Your task to perform on an android device: turn on the 24-hour format for clock Image 0: 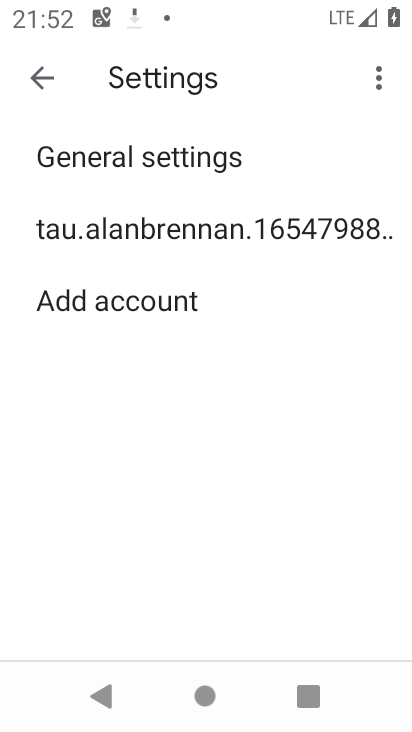
Step 0: press back button
Your task to perform on an android device: turn on the 24-hour format for clock Image 1: 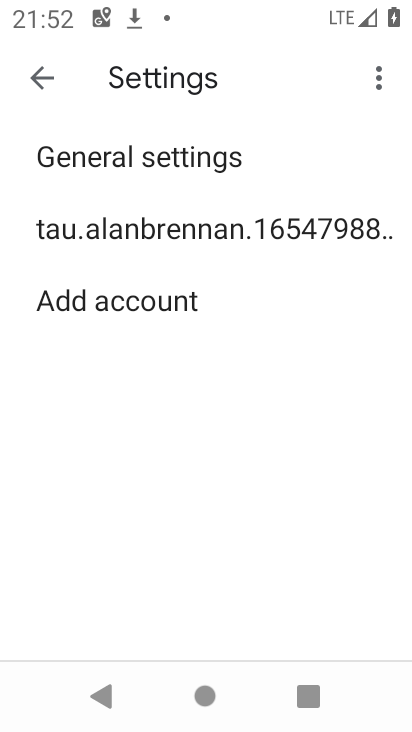
Step 1: press back button
Your task to perform on an android device: turn on the 24-hour format for clock Image 2: 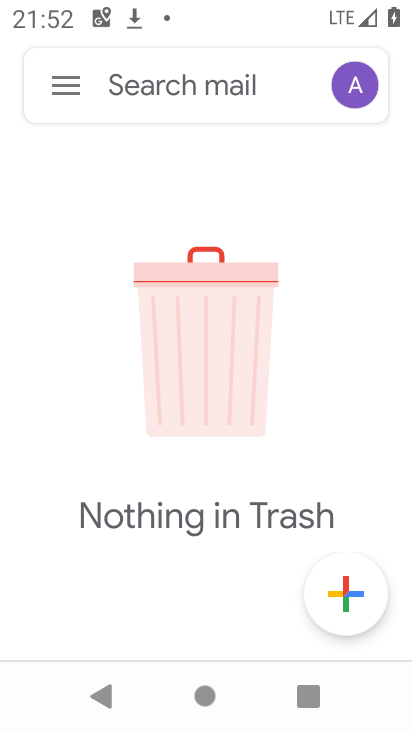
Step 2: press back button
Your task to perform on an android device: turn on the 24-hour format for clock Image 3: 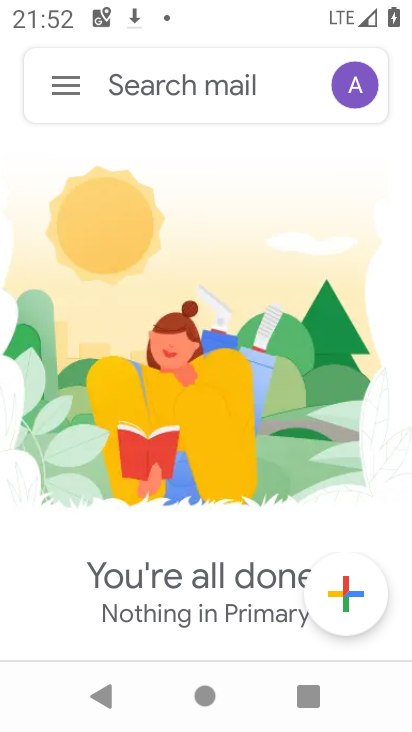
Step 3: press back button
Your task to perform on an android device: turn on the 24-hour format for clock Image 4: 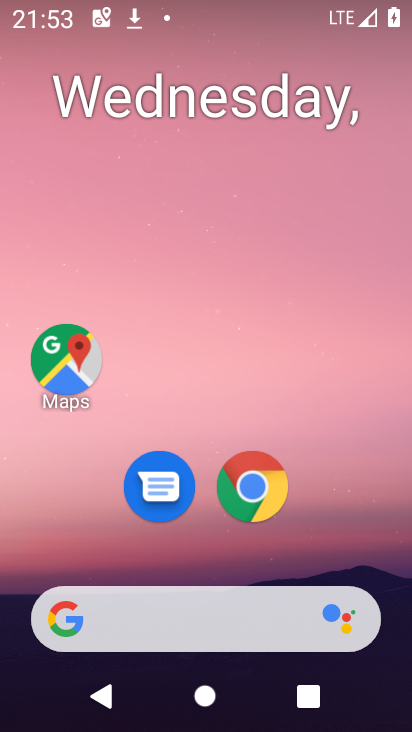
Step 4: drag from (163, 403) to (141, 29)
Your task to perform on an android device: turn on the 24-hour format for clock Image 5: 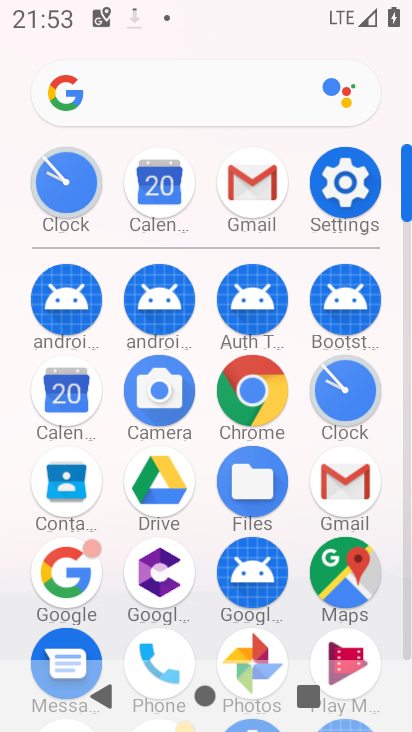
Step 5: click (351, 383)
Your task to perform on an android device: turn on the 24-hour format for clock Image 6: 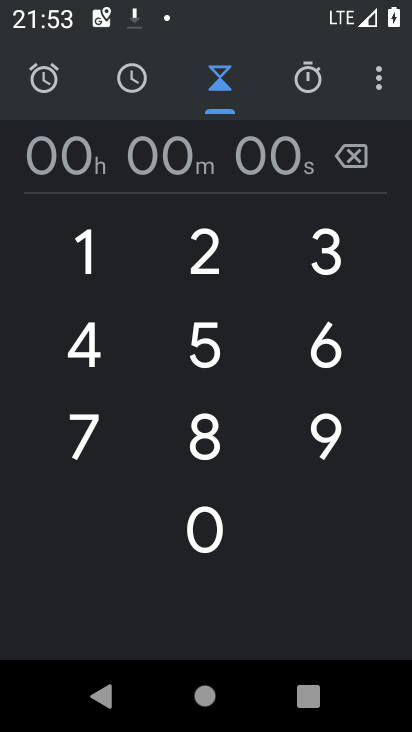
Step 6: click (381, 78)
Your task to perform on an android device: turn on the 24-hour format for clock Image 7: 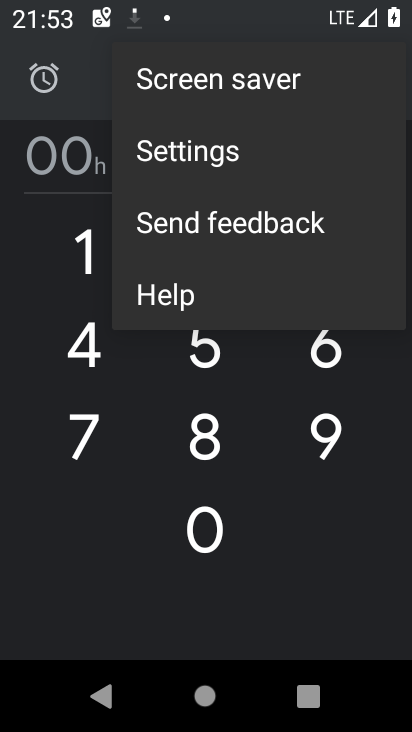
Step 7: click (195, 153)
Your task to perform on an android device: turn on the 24-hour format for clock Image 8: 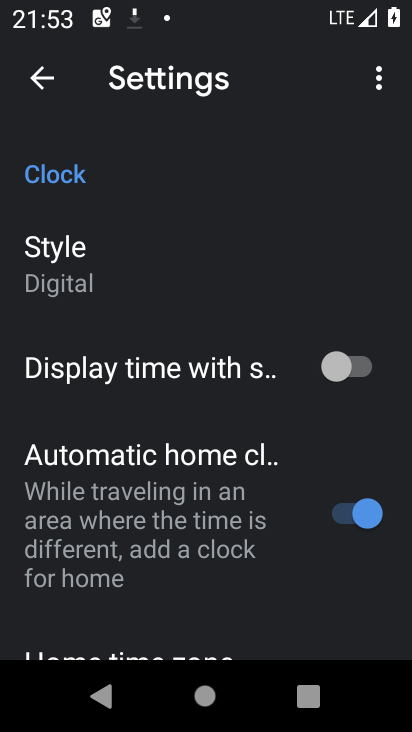
Step 8: drag from (147, 588) to (270, 97)
Your task to perform on an android device: turn on the 24-hour format for clock Image 9: 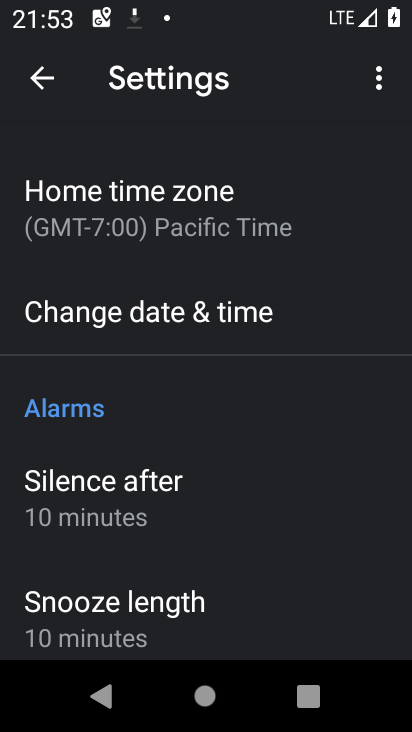
Step 9: click (192, 304)
Your task to perform on an android device: turn on the 24-hour format for clock Image 10: 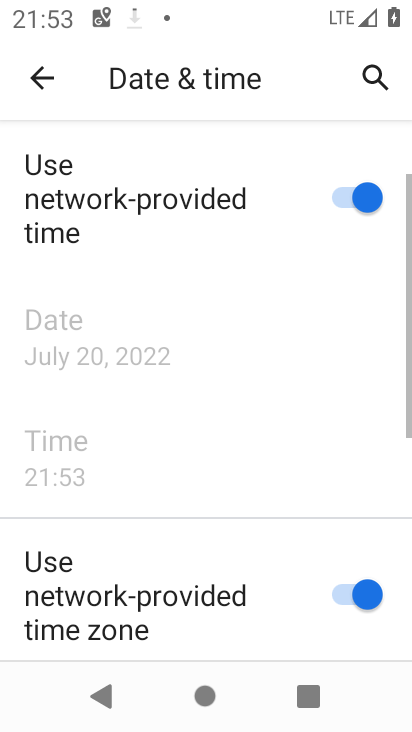
Step 10: task complete